Your task to perform on an android device: Open eBay Image 0: 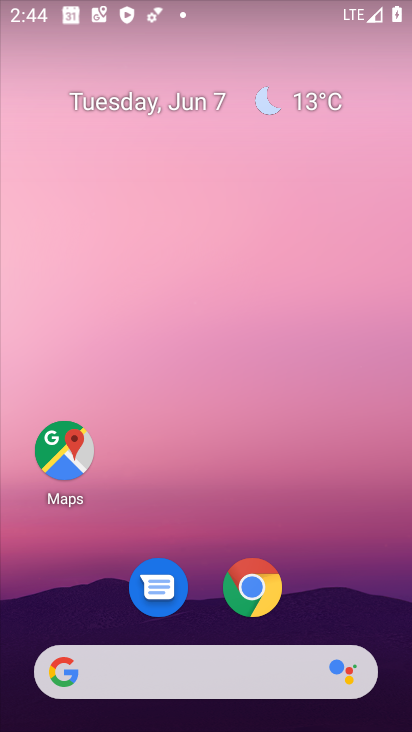
Step 0: click (249, 607)
Your task to perform on an android device: Open eBay Image 1: 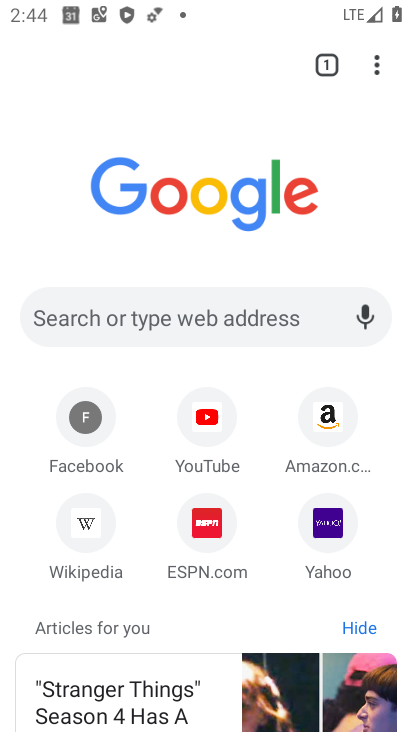
Step 1: click (256, 330)
Your task to perform on an android device: Open eBay Image 2: 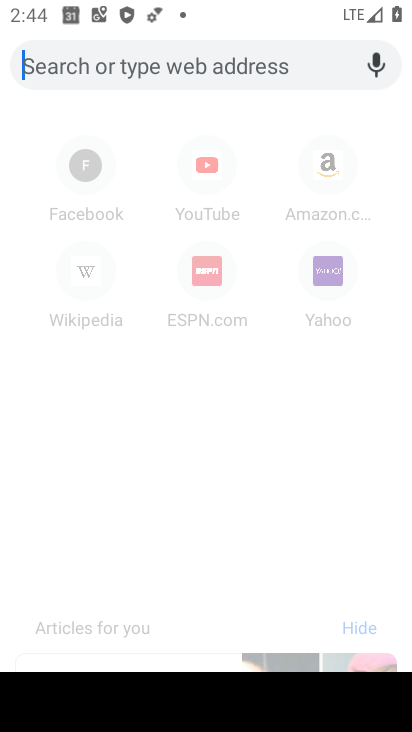
Step 2: type "ebay"
Your task to perform on an android device: Open eBay Image 3: 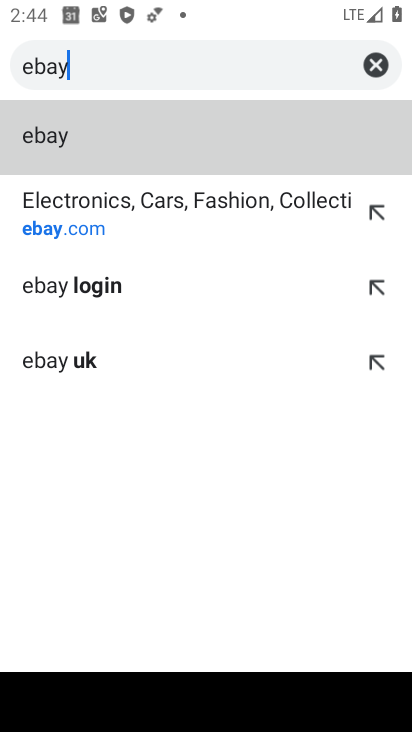
Step 3: click (164, 225)
Your task to perform on an android device: Open eBay Image 4: 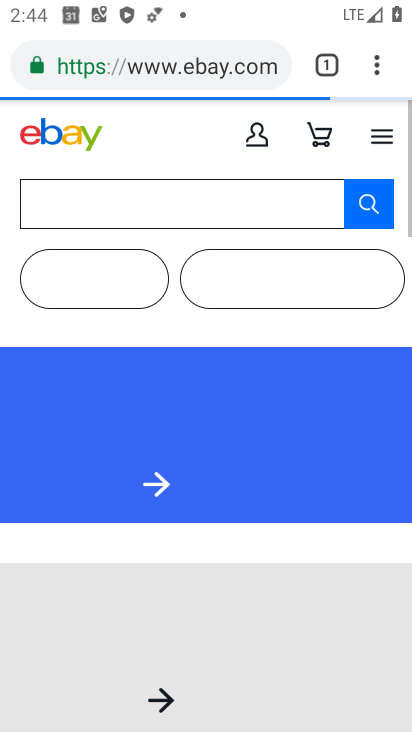
Step 4: task complete